Your task to perform on an android device: Set the phone to "Do not disturb". Image 0: 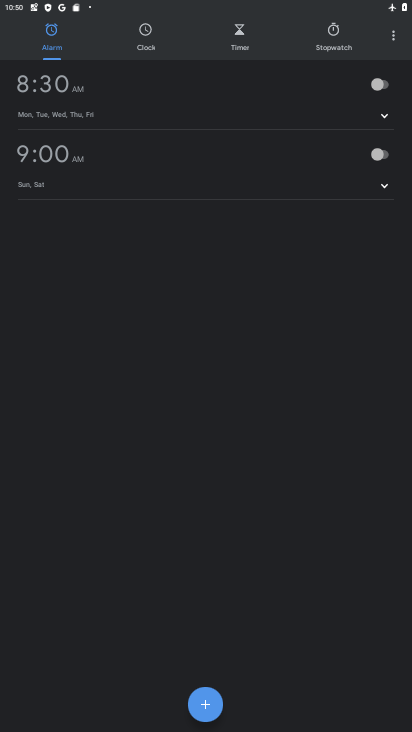
Step 0: press home button
Your task to perform on an android device: Set the phone to "Do not disturb". Image 1: 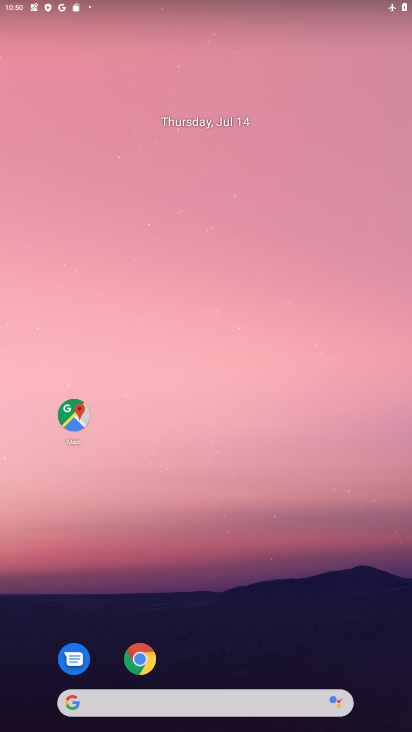
Step 1: drag from (188, 0) to (322, 511)
Your task to perform on an android device: Set the phone to "Do not disturb". Image 2: 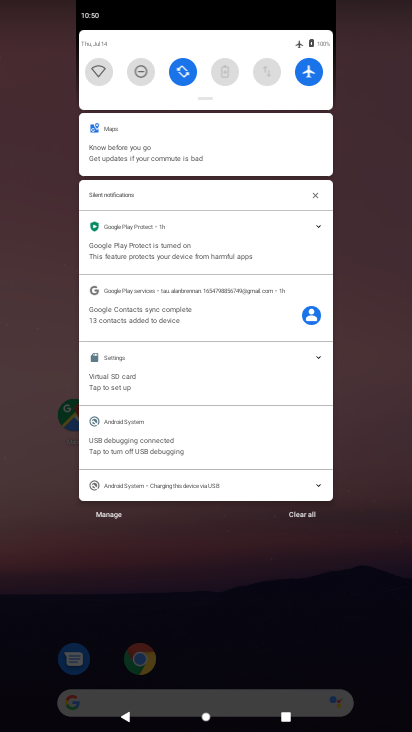
Step 2: click (143, 71)
Your task to perform on an android device: Set the phone to "Do not disturb". Image 3: 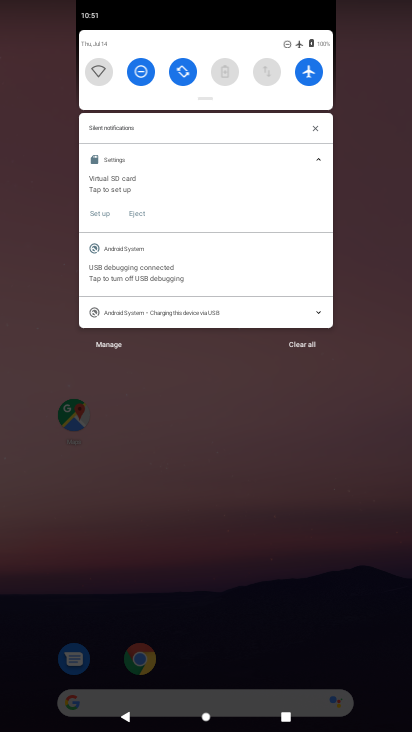
Step 3: task complete